Your task to perform on an android device: Search for razer blade on ebay.com, select the first entry, and add it to the cart. Image 0: 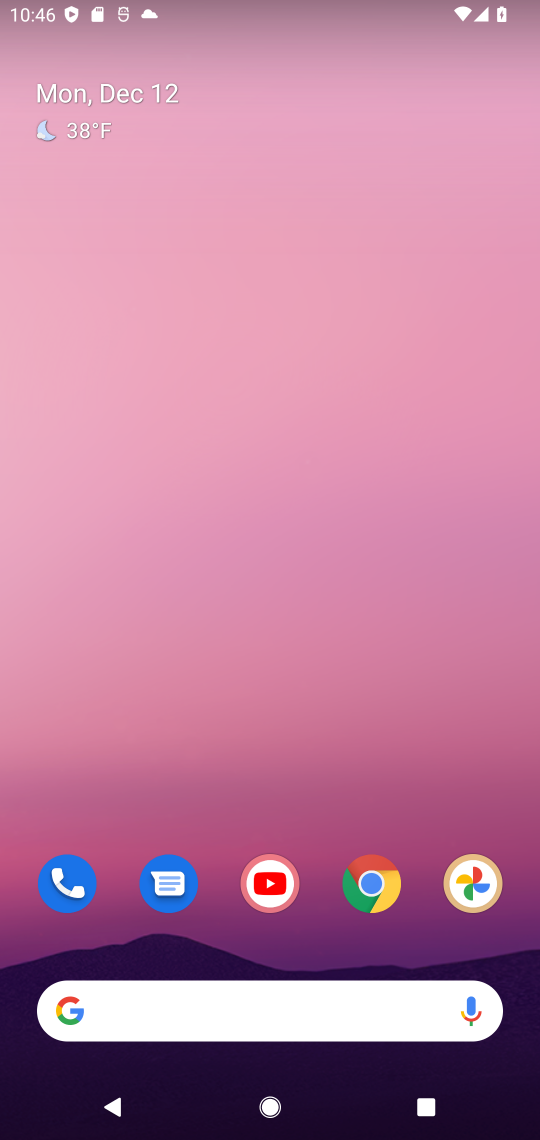
Step 0: drag from (257, 895) to (307, 7)
Your task to perform on an android device: Search for razer blade on ebay.com, select the first entry, and add it to the cart. Image 1: 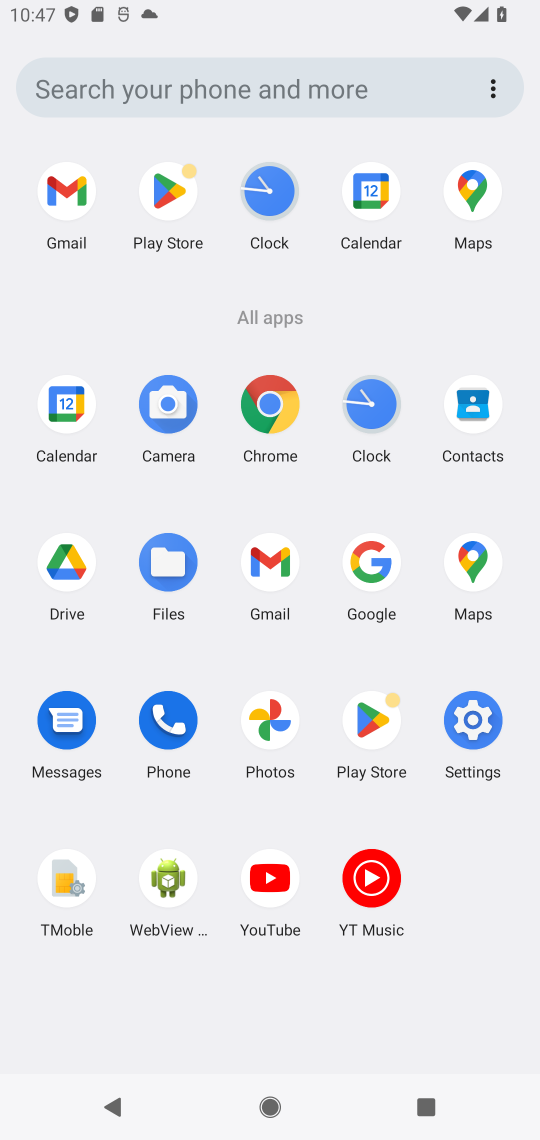
Step 1: click (350, 569)
Your task to perform on an android device: Search for razer blade on ebay.com, select the first entry, and add it to the cart. Image 2: 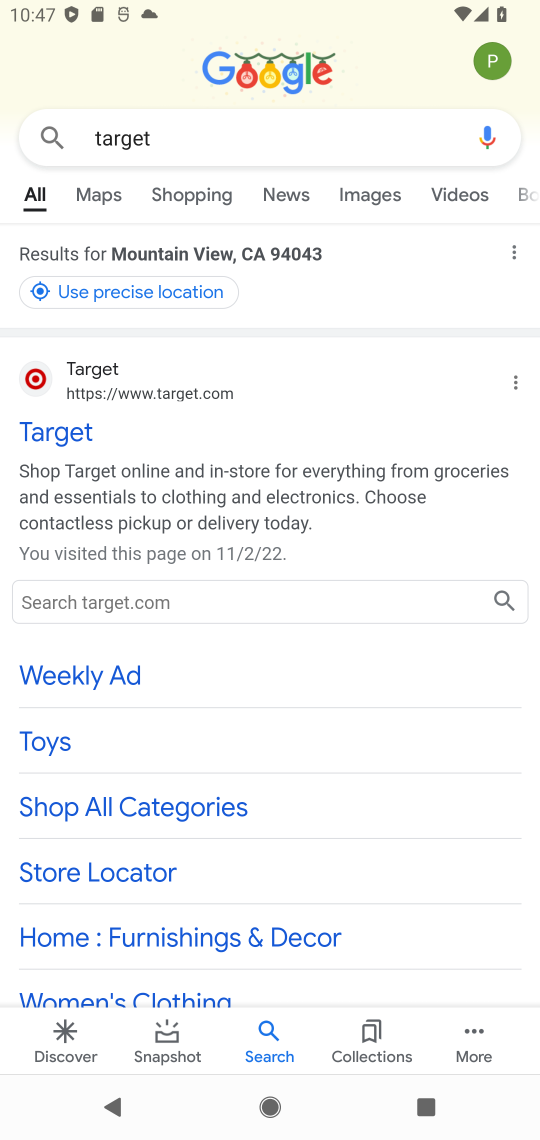
Step 2: click (318, 127)
Your task to perform on an android device: Search for razer blade on ebay.com, select the first entry, and add it to the cart. Image 3: 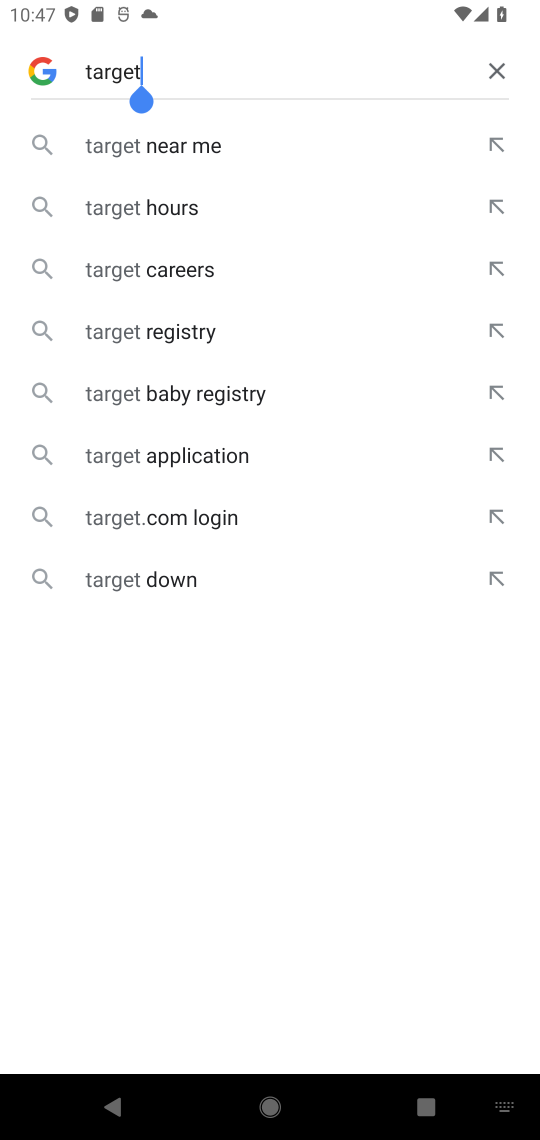
Step 3: click (492, 67)
Your task to perform on an android device: Search for razer blade on ebay.com, select the first entry, and add it to the cart. Image 4: 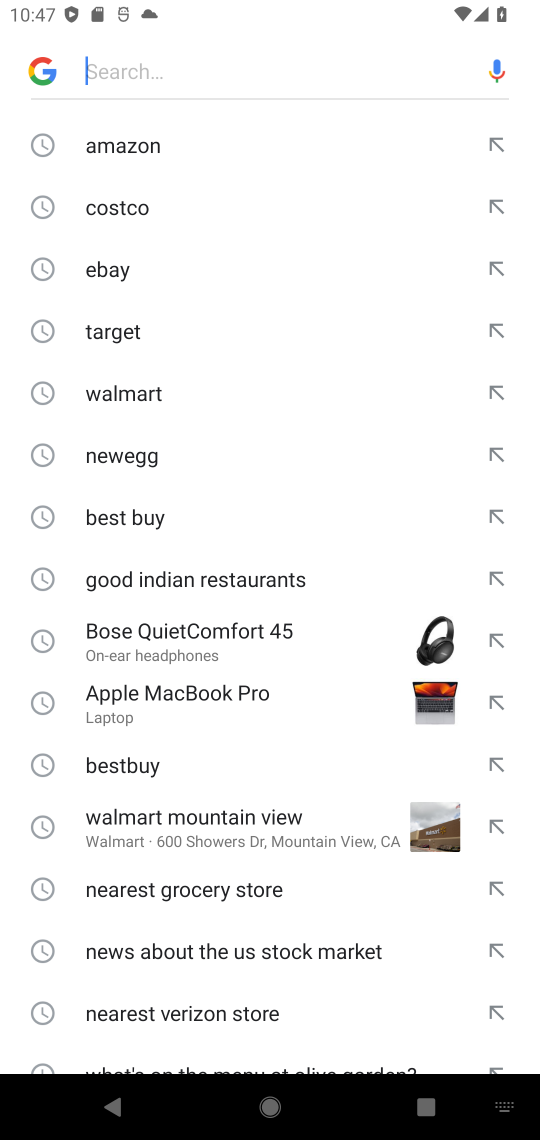
Step 4: click (85, 260)
Your task to perform on an android device: Search for razer blade on ebay.com, select the first entry, and add it to the cart. Image 5: 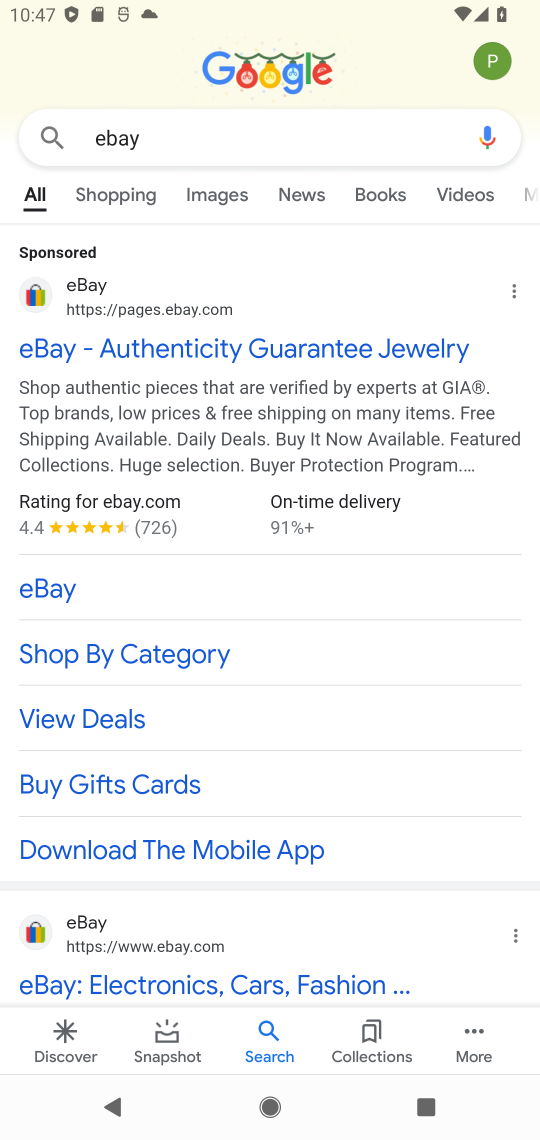
Step 5: click (42, 336)
Your task to perform on an android device: Search for razer blade on ebay.com, select the first entry, and add it to the cart. Image 6: 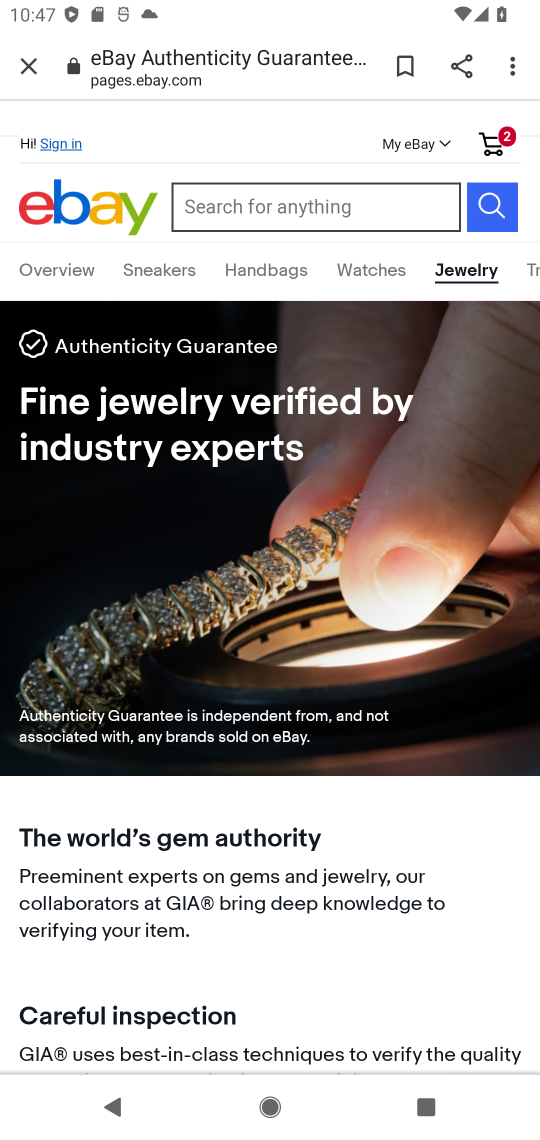
Step 6: click (274, 194)
Your task to perform on an android device: Search for razer blade on ebay.com, select the first entry, and add it to the cart. Image 7: 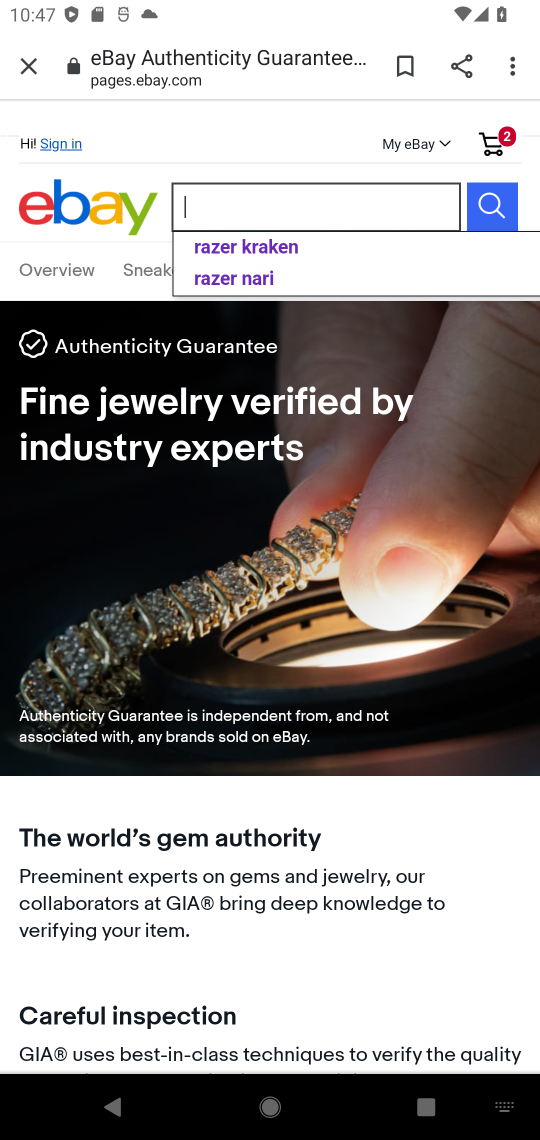
Step 7: type "razer"
Your task to perform on an android device: Search for razer blade on ebay.com, select the first entry, and add it to the cart. Image 8: 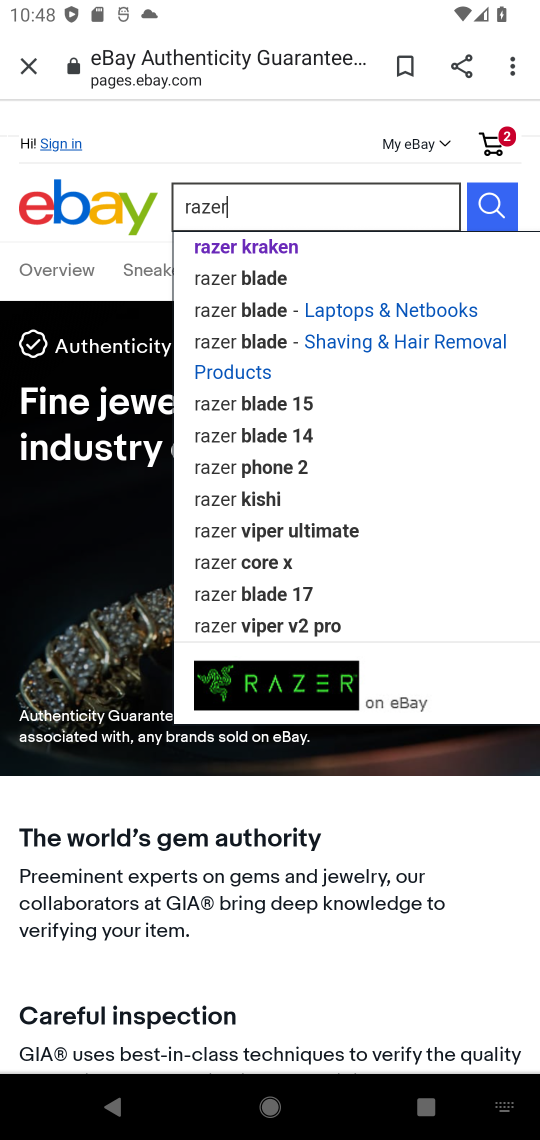
Step 8: click (219, 208)
Your task to perform on an android device: Search for razer blade on ebay.com, select the first entry, and add it to the cart. Image 9: 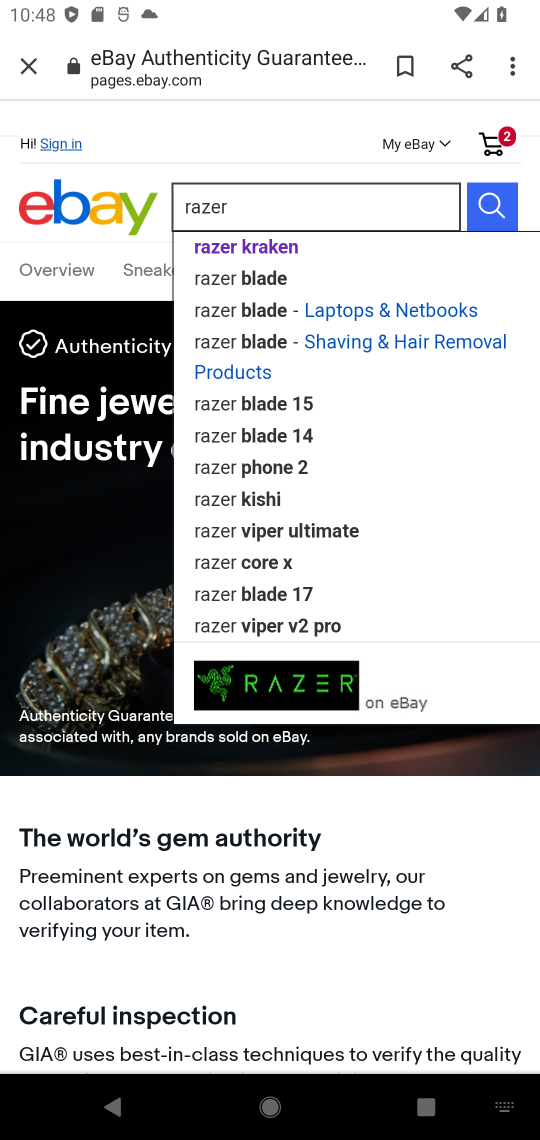
Step 9: click (219, 208)
Your task to perform on an android device: Search for razer blade on ebay.com, select the first entry, and add it to the cart. Image 10: 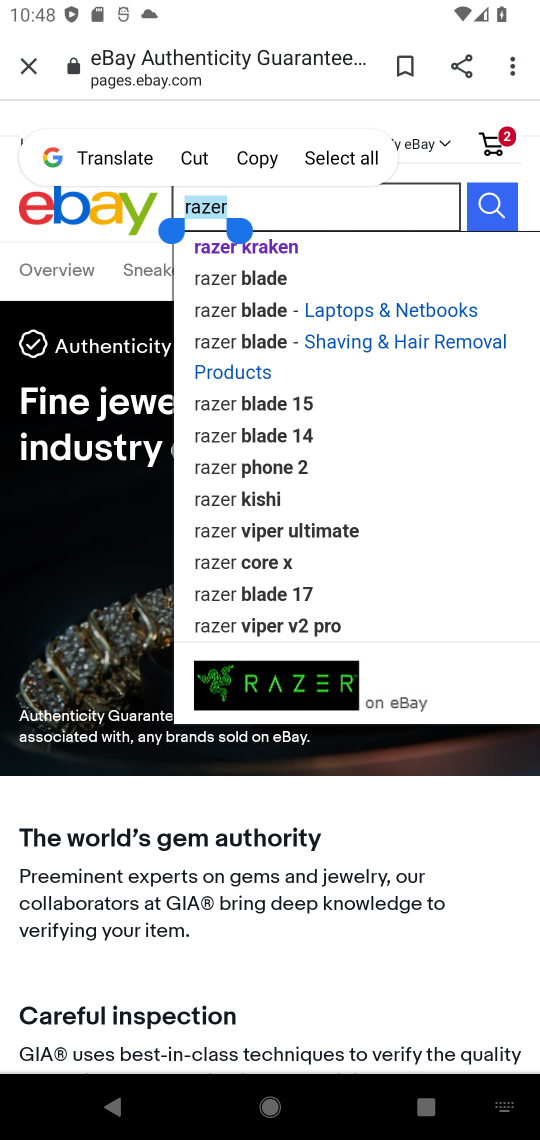
Step 10: type "razer blade"
Your task to perform on an android device: Search for razer blade on ebay.com, select the first entry, and add it to the cart. Image 11: 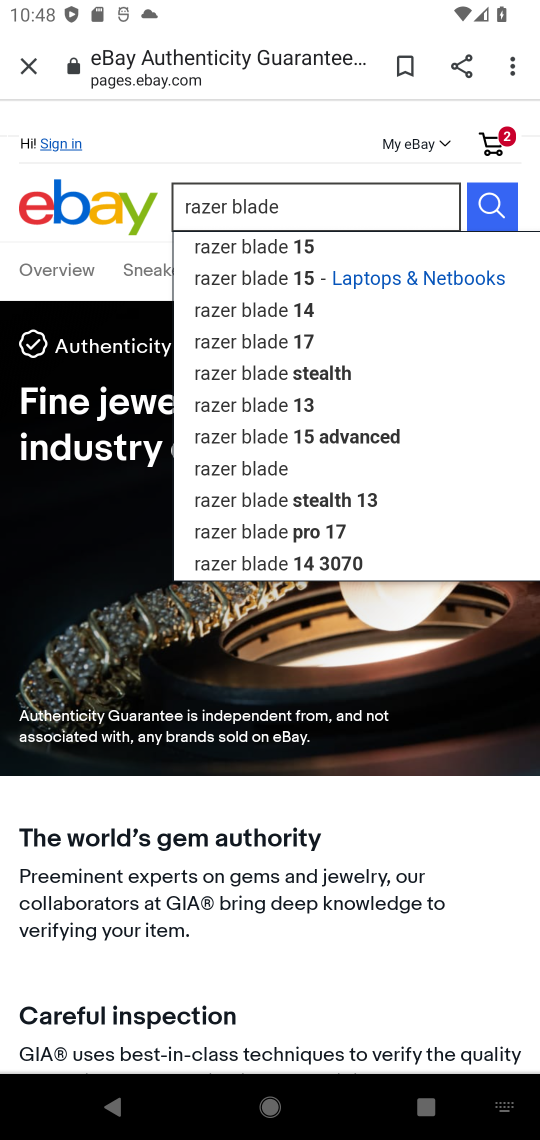
Step 11: click (475, 212)
Your task to perform on an android device: Search for razer blade on ebay.com, select the first entry, and add it to the cart. Image 12: 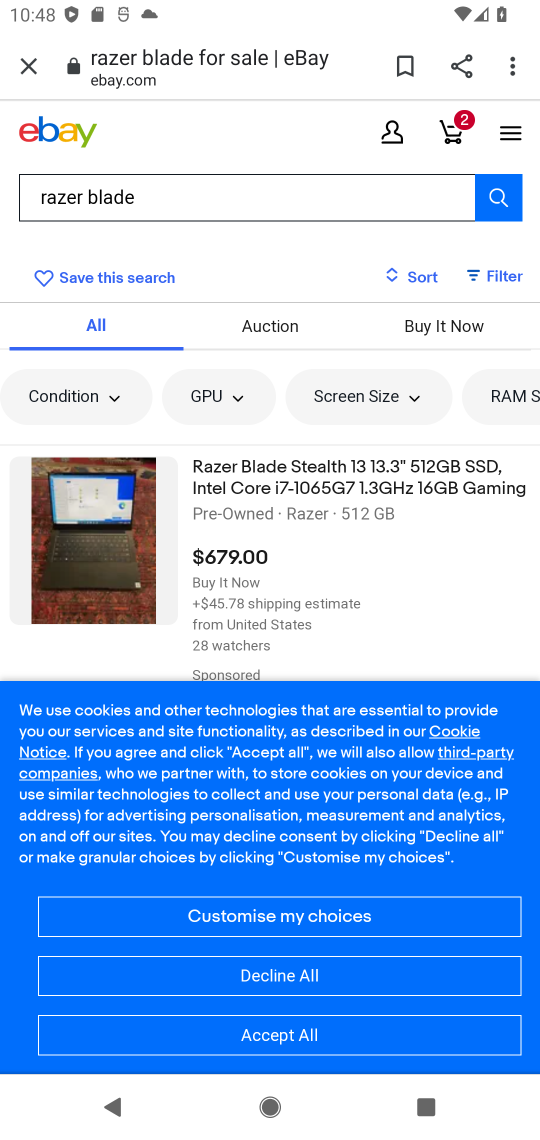
Step 12: click (209, 490)
Your task to perform on an android device: Search for razer blade on ebay.com, select the first entry, and add it to the cart. Image 13: 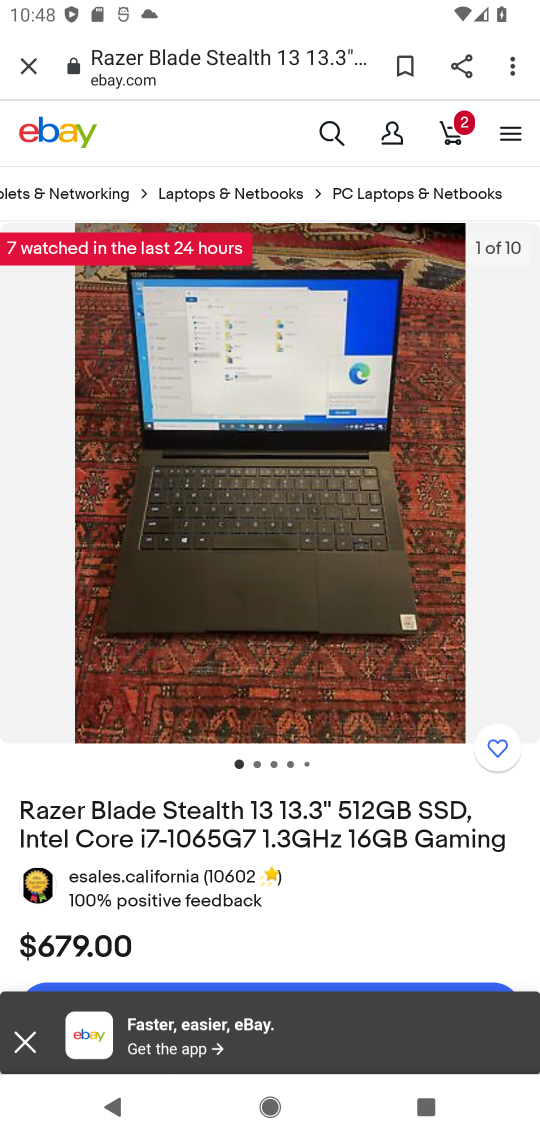
Step 13: drag from (308, 850) to (238, 417)
Your task to perform on an android device: Search for razer blade on ebay.com, select the first entry, and add it to the cart. Image 14: 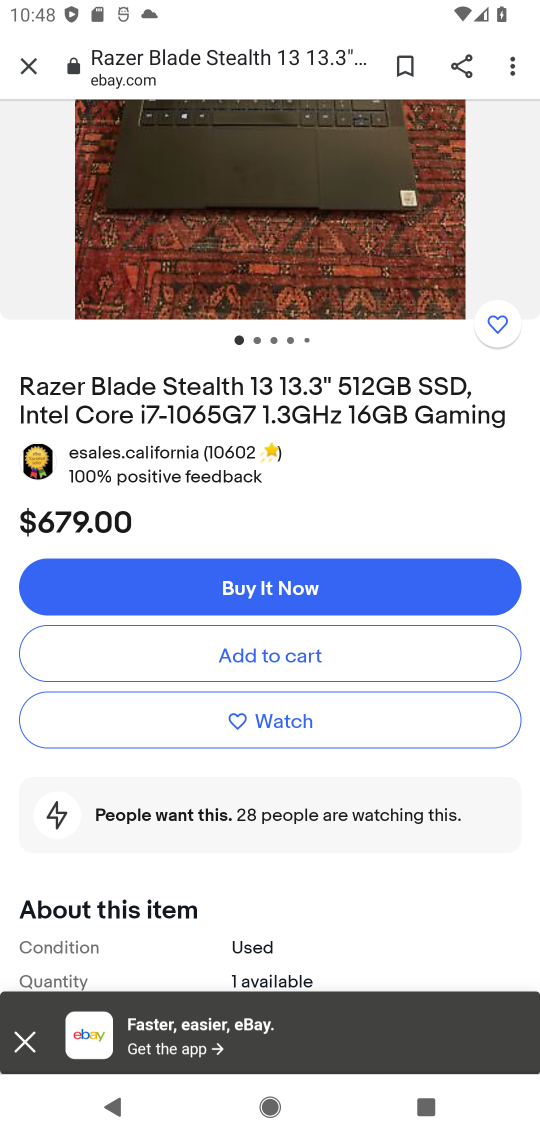
Step 14: click (261, 643)
Your task to perform on an android device: Search for razer blade on ebay.com, select the first entry, and add it to the cart. Image 15: 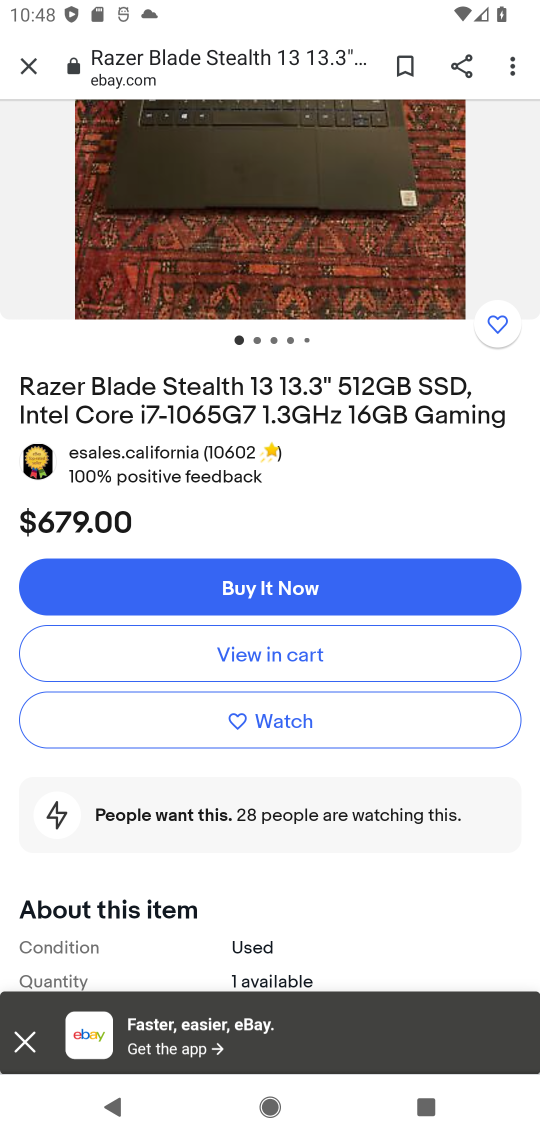
Step 15: task complete